Your task to perform on an android device: Open the phone app and click the voicemail tab. Image 0: 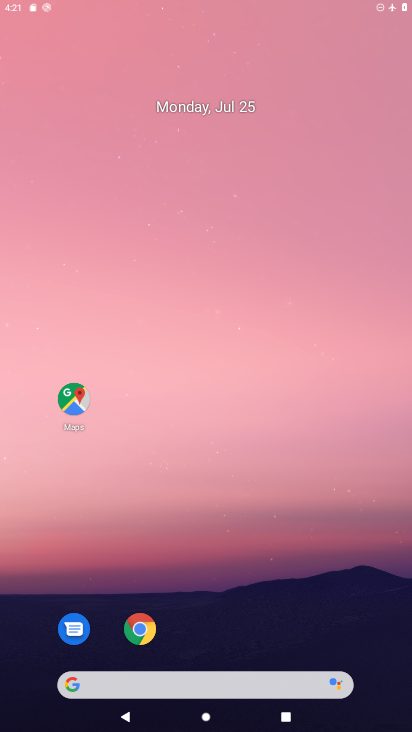
Step 0: drag from (330, 2) to (375, 0)
Your task to perform on an android device: Open the phone app and click the voicemail tab. Image 1: 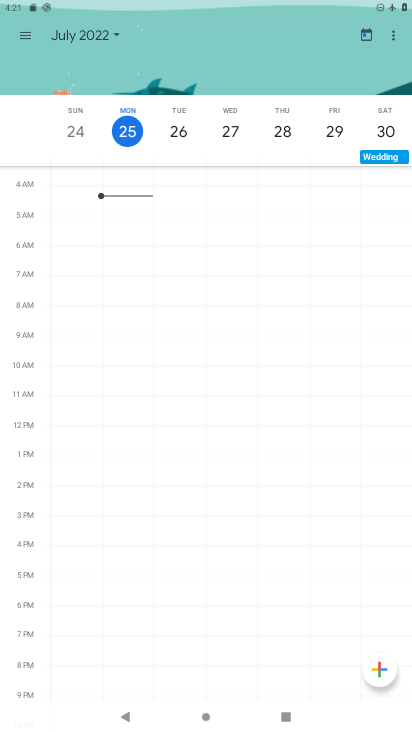
Step 1: press home button
Your task to perform on an android device: Open the phone app and click the voicemail tab. Image 2: 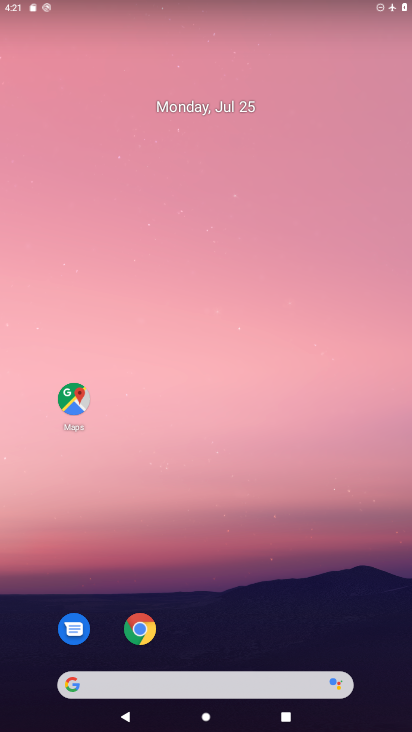
Step 2: drag from (284, 678) to (308, 5)
Your task to perform on an android device: Open the phone app and click the voicemail tab. Image 3: 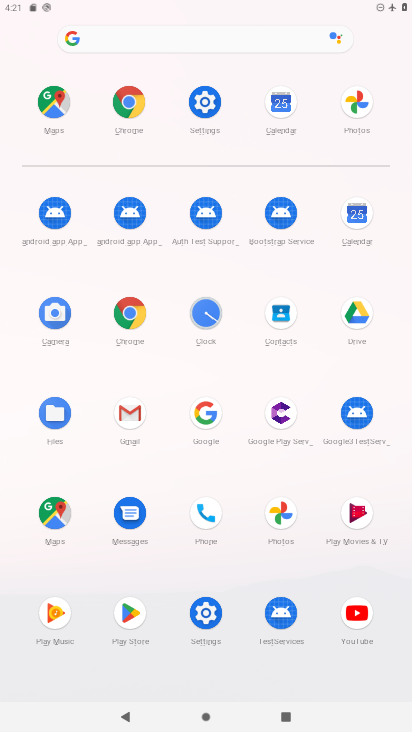
Step 3: click (200, 512)
Your task to perform on an android device: Open the phone app and click the voicemail tab. Image 4: 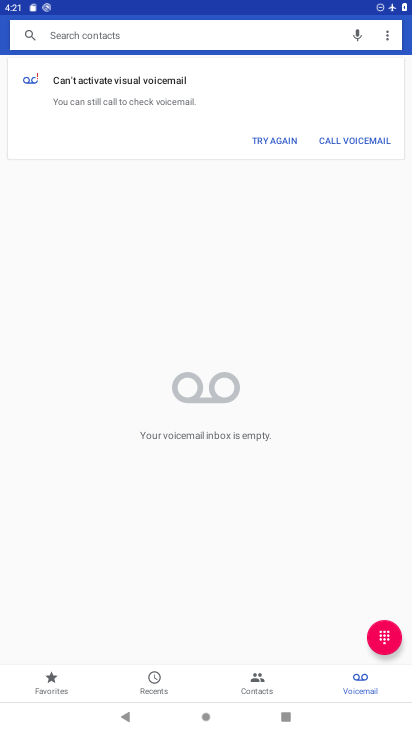
Step 4: click (356, 684)
Your task to perform on an android device: Open the phone app and click the voicemail tab. Image 5: 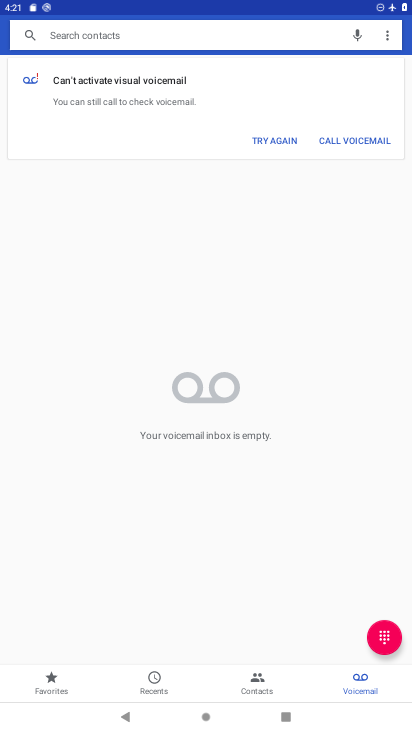
Step 5: task complete